Your task to perform on an android device: turn on data saver in the chrome app Image 0: 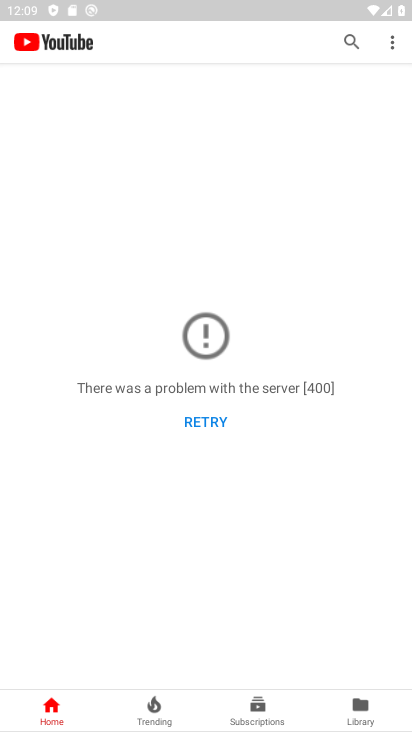
Step 0: press home button
Your task to perform on an android device: turn on data saver in the chrome app Image 1: 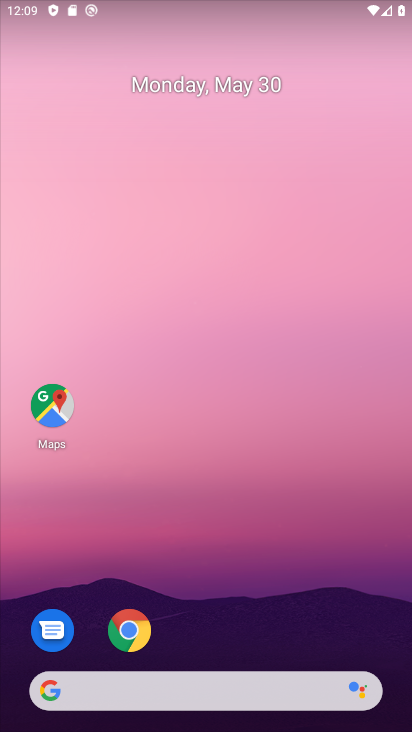
Step 1: click (119, 637)
Your task to perform on an android device: turn on data saver in the chrome app Image 2: 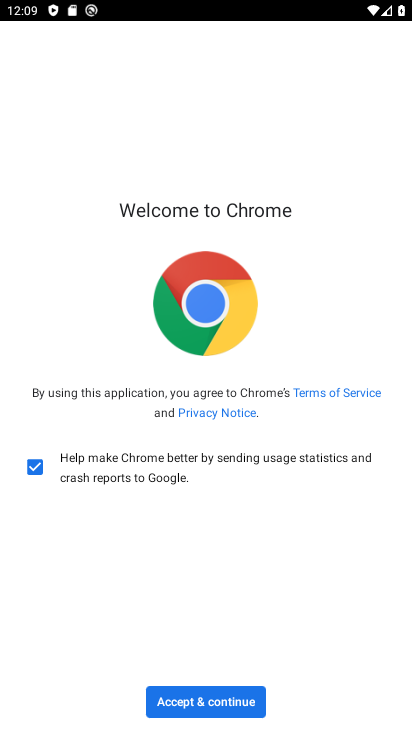
Step 2: click (226, 703)
Your task to perform on an android device: turn on data saver in the chrome app Image 3: 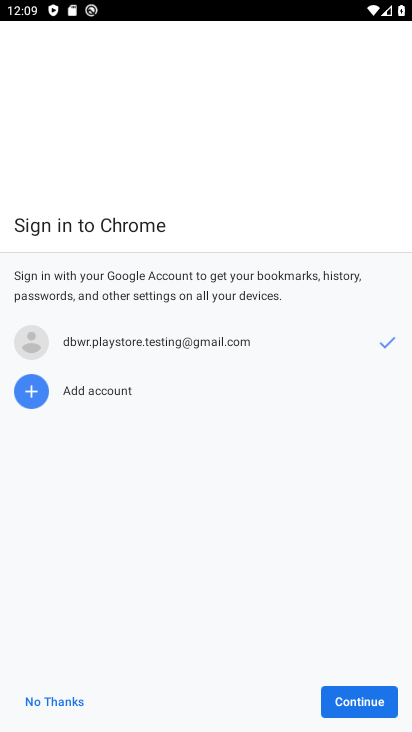
Step 3: click (345, 700)
Your task to perform on an android device: turn on data saver in the chrome app Image 4: 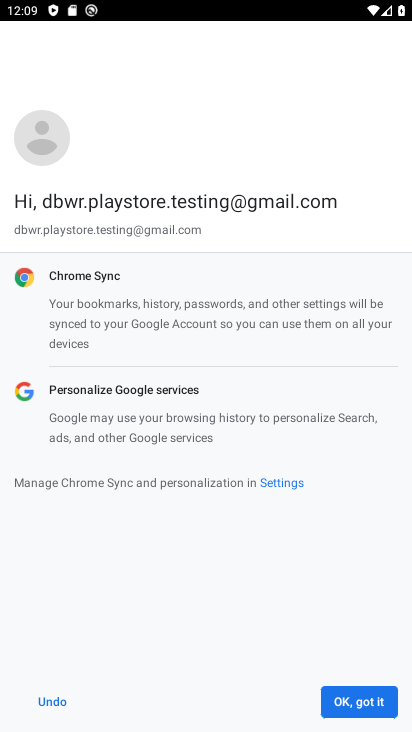
Step 4: click (365, 702)
Your task to perform on an android device: turn on data saver in the chrome app Image 5: 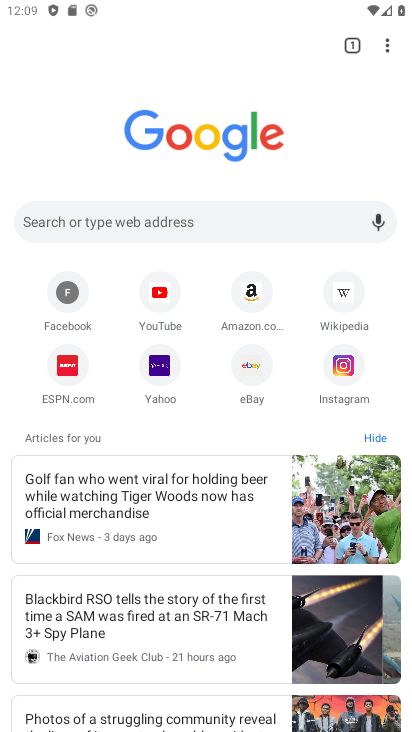
Step 5: drag from (387, 45) to (273, 376)
Your task to perform on an android device: turn on data saver in the chrome app Image 6: 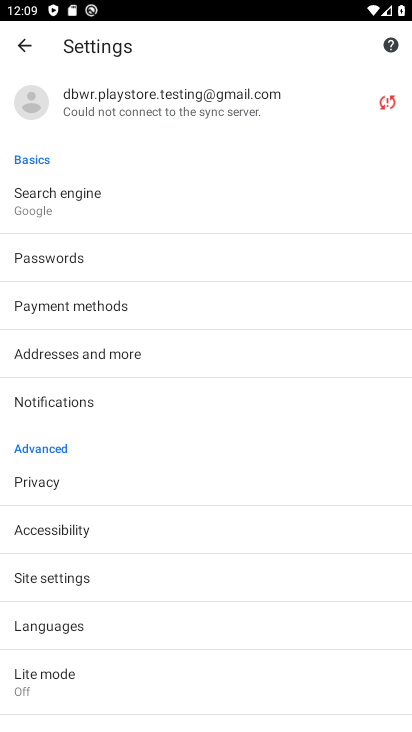
Step 6: click (79, 679)
Your task to perform on an android device: turn on data saver in the chrome app Image 7: 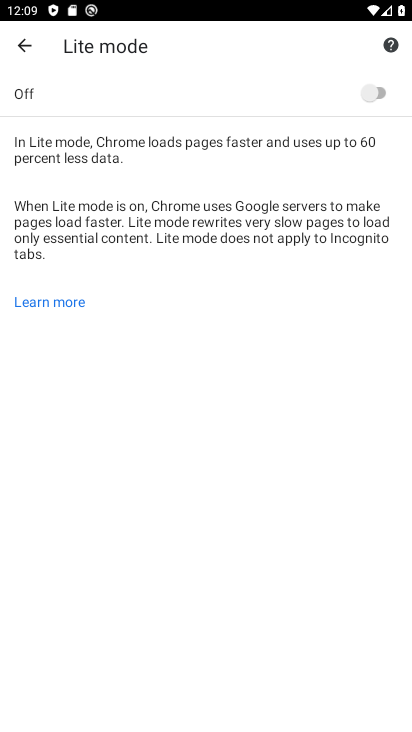
Step 7: click (381, 95)
Your task to perform on an android device: turn on data saver in the chrome app Image 8: 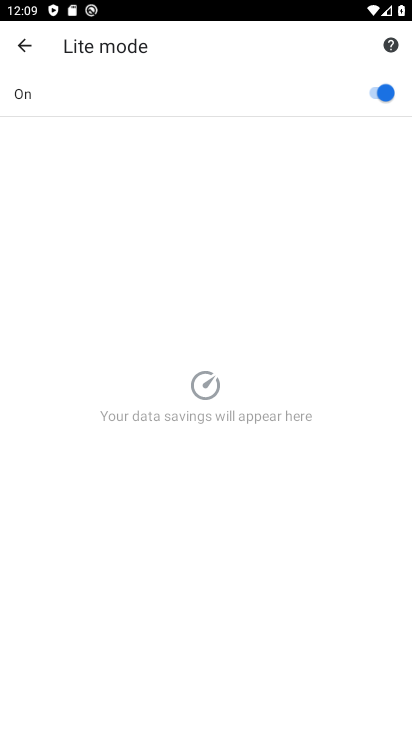
Step 8: task complete